Your task to perform on an android device: find photos in the google photos app Image 0: 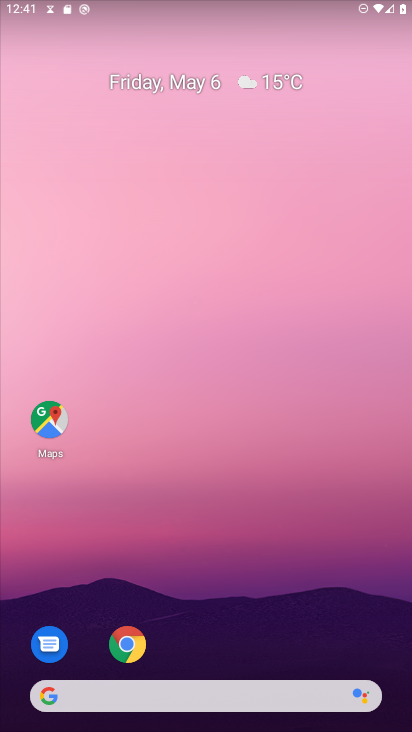
Step 0: drag from (336, 586) to (318, 6)
Your task to perform on an android device: find photos in the google photos app Image 1: 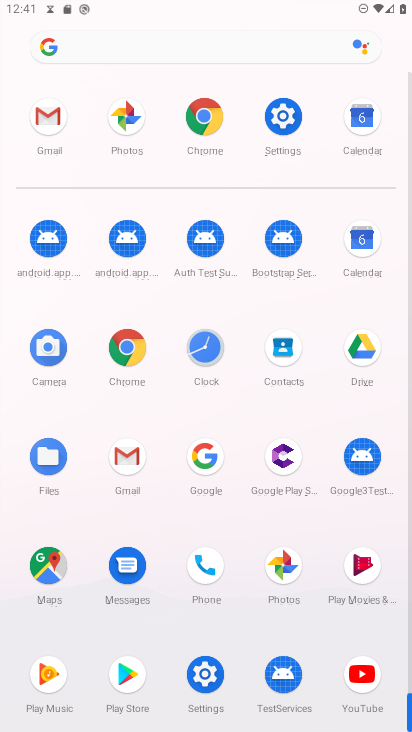
Step 1: drag from (9, 580) to (31, 230)
Your task to perform on an android device: find photos in the google photos app Image 2: 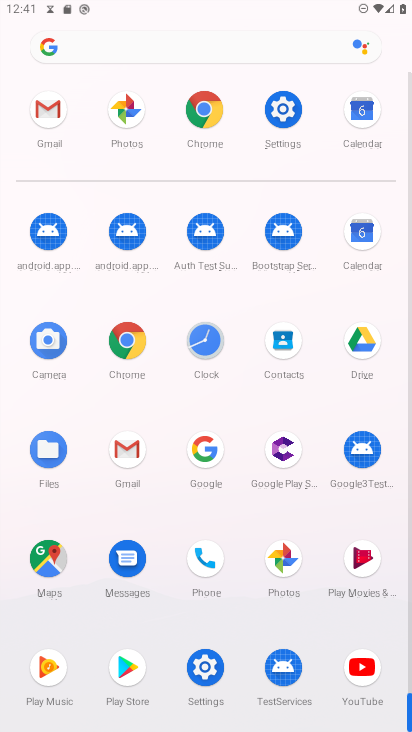
Step 2: click (285, 557)
Your task to perform on an android device: find photos in the google photos app Image 3: 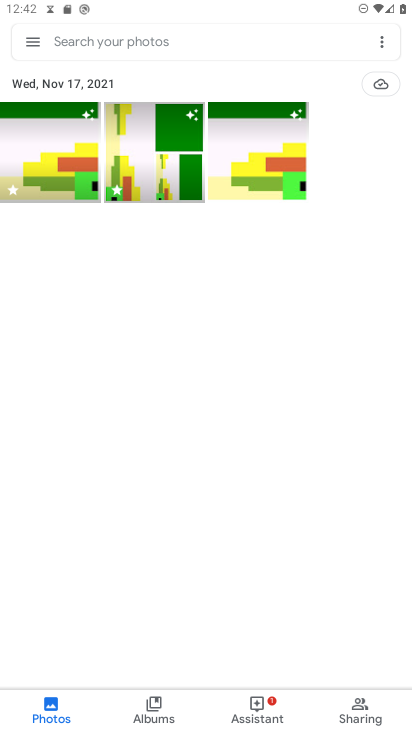
Step 3: task complete